Your task to perform on an android device: turn on data saver in the chrome app Image 0: 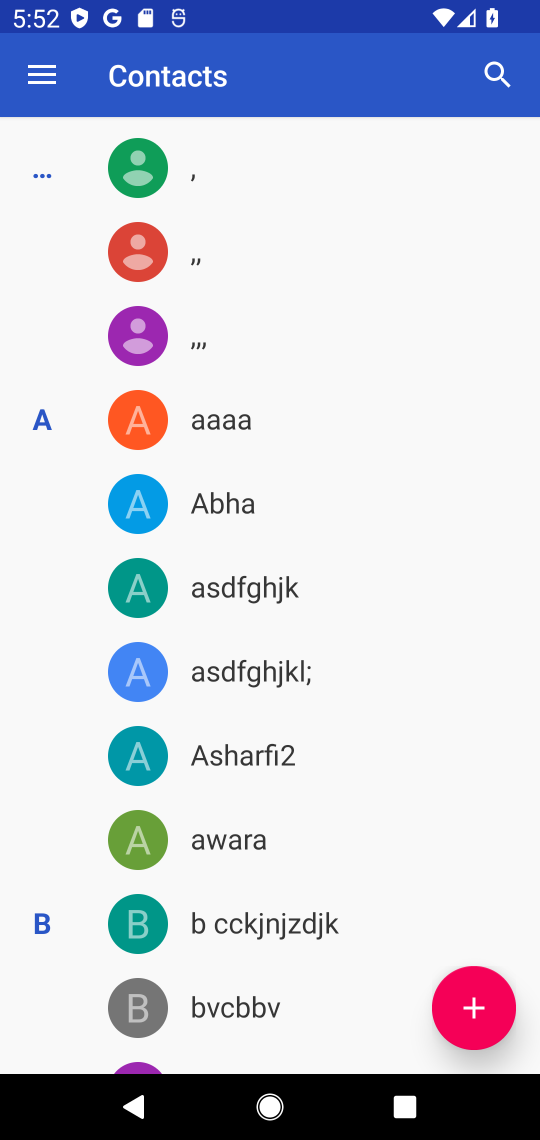
Step 0: press home button
Your task to perform on an android device: turn on data saver in the chrome app Image 1: 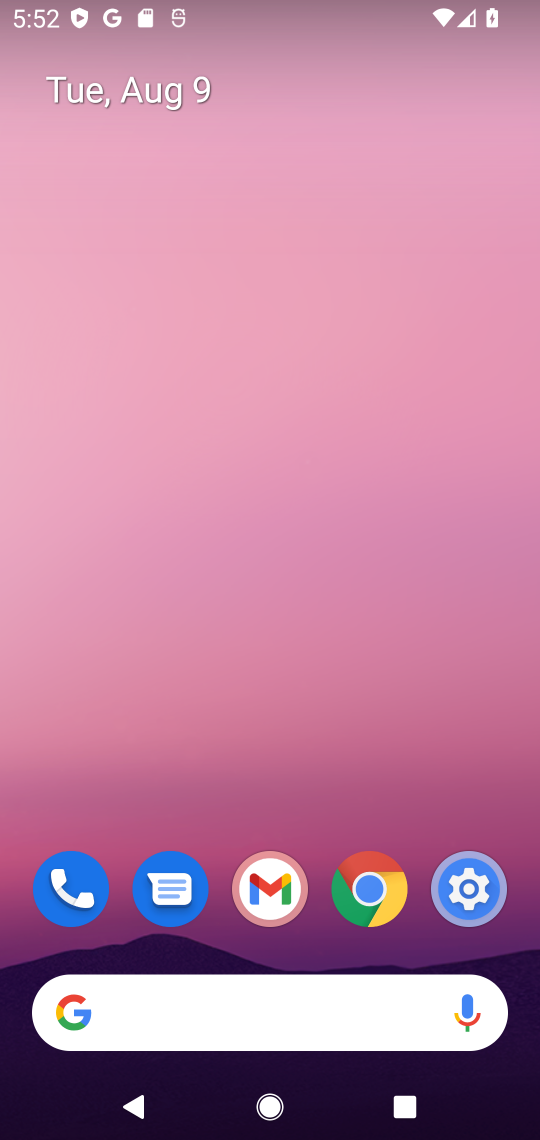
Step 1: click (356, 929)
Your task to perform on an android device: turn on data saver in the chrome app Image 2: 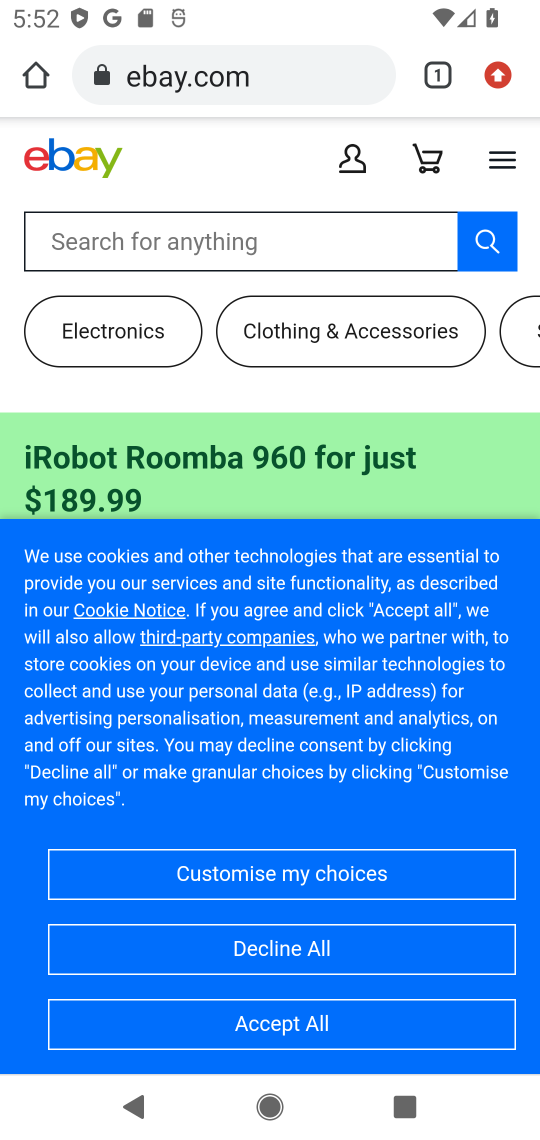
Step 2: drag from (501, 73) to (297, 897)
Your task to perform on an android device: turn on data saver in the chrome app Image 3: 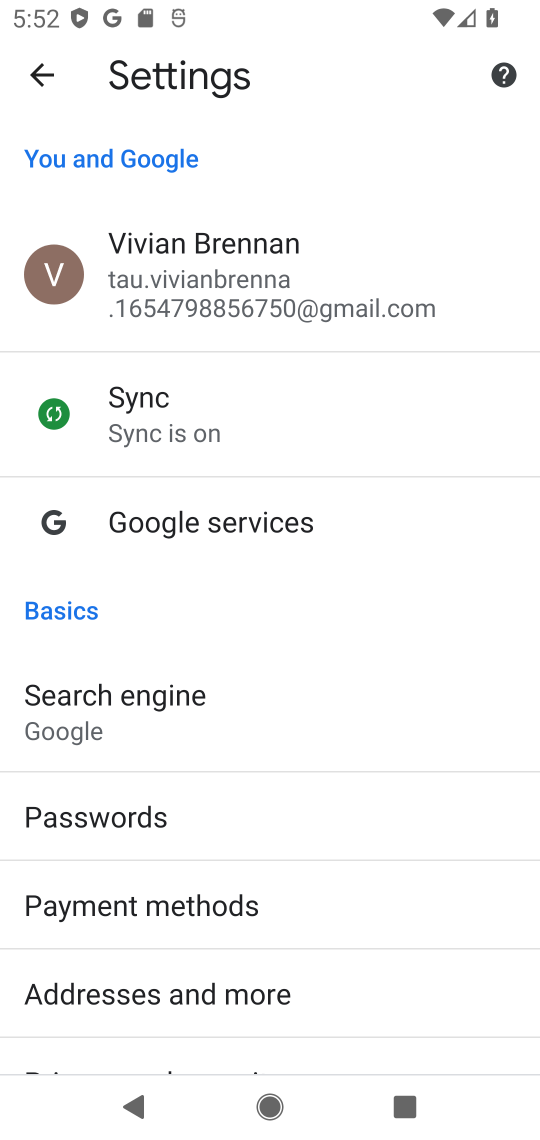
Step 3: drag from (275, 961) to (231, 410)
Your task to perform on an android device: turn on data saver in the chrome app Image 4: 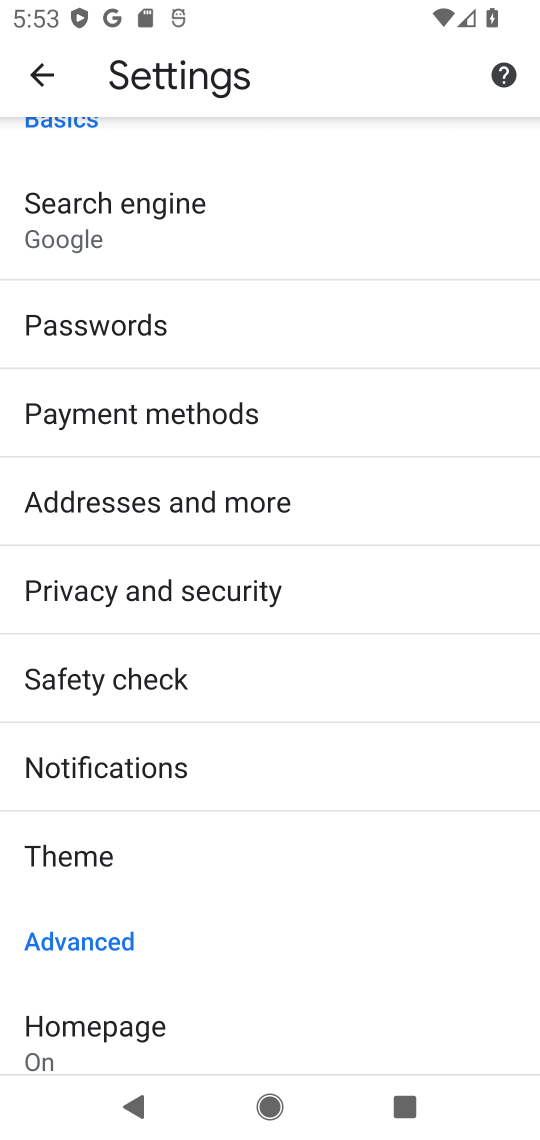
Step 4: drag from (244, 999) to (221, 452)
Your task to perform on an android device: turn on data saver in the chrome app Image 5: 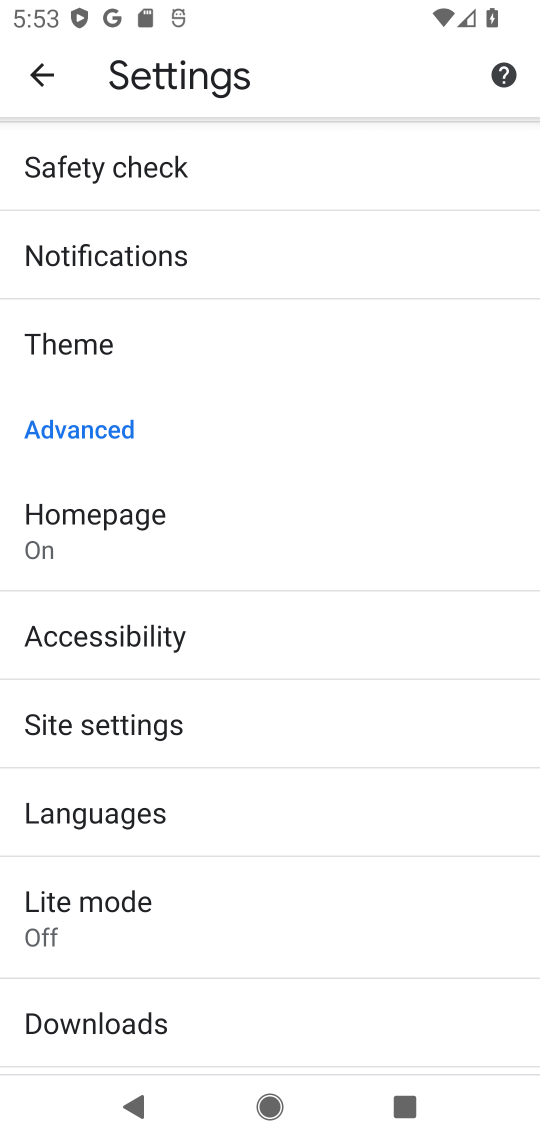
Step 5: click (200, 915)
Your task to perform on an android device: turn on data saver in the chrome app Image 6: 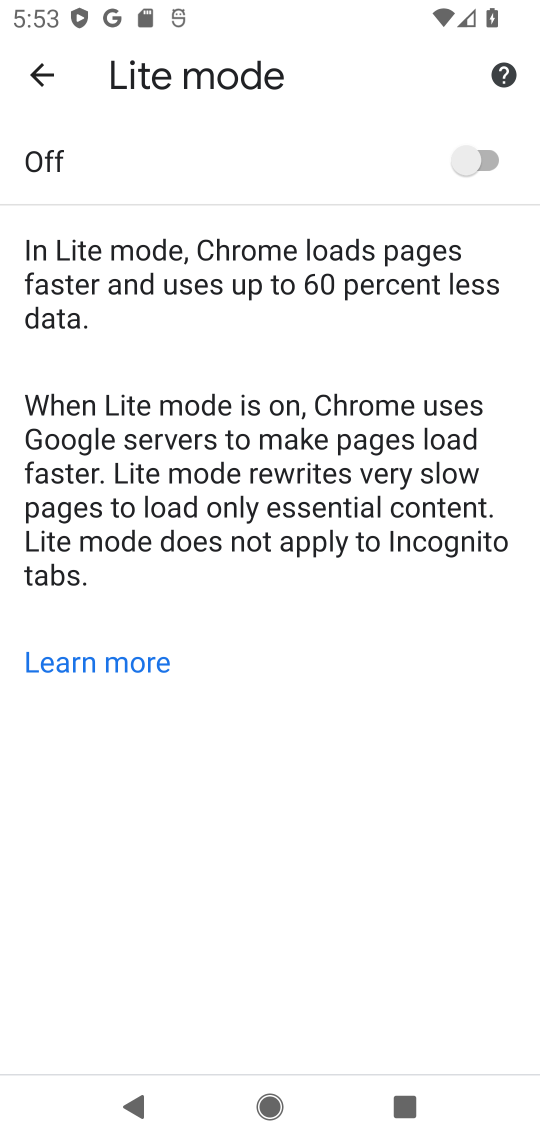
Step 6: click (472, 169)
Your task to perform on an android device: turn on data saver in the chrome app Image 7: 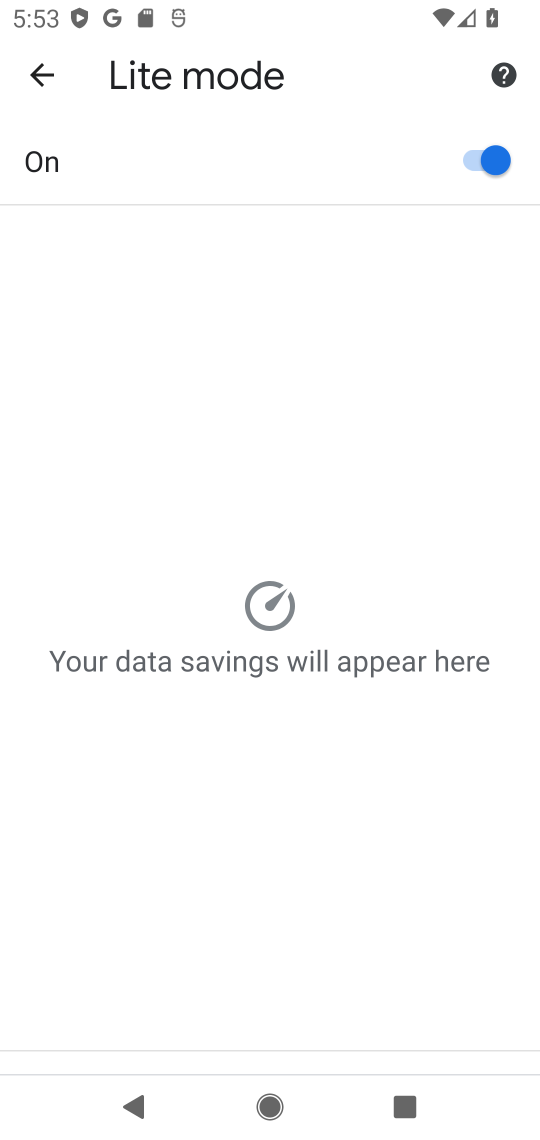
Step 7: task complete